Your task to perform on an android device: Go to privacy settings Image 0: 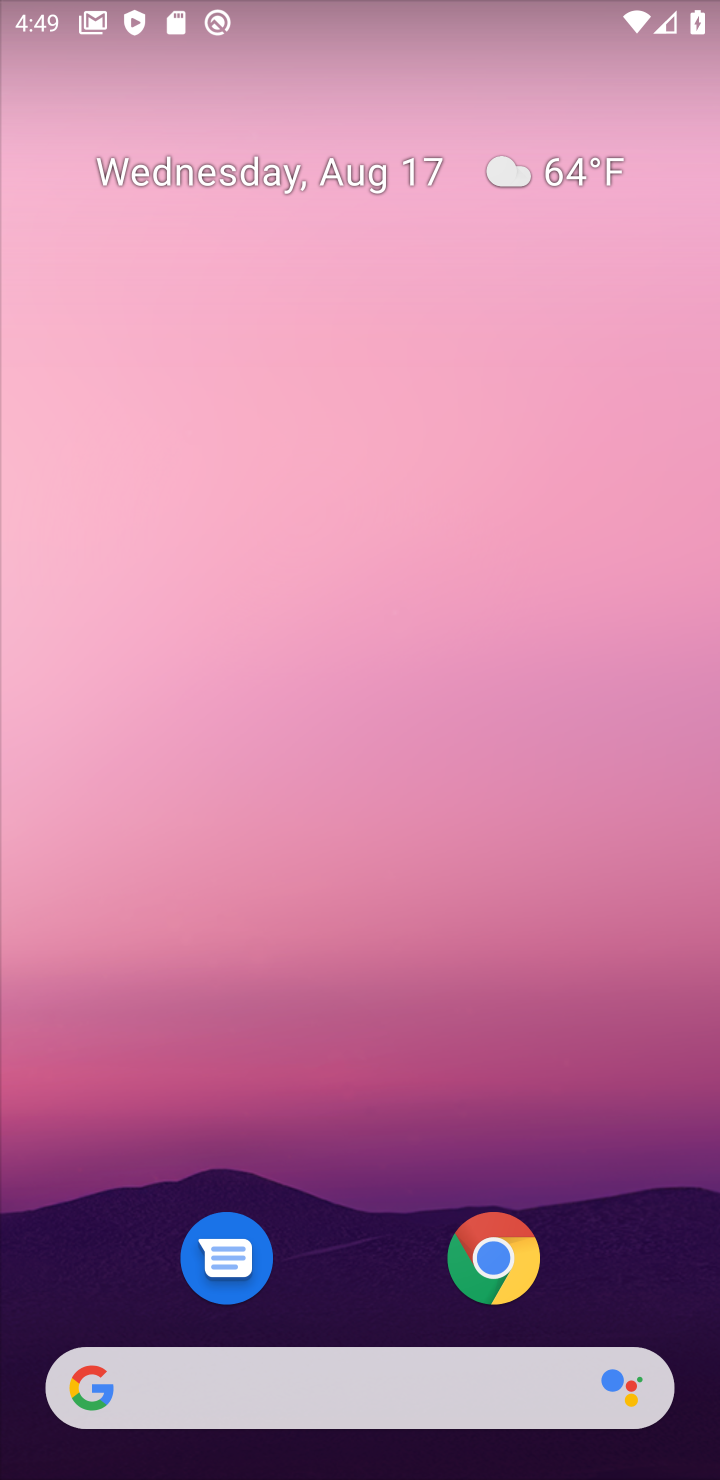
Step 0: press home button
Your task to perform on an android device: Go to privacy settings Image 1: 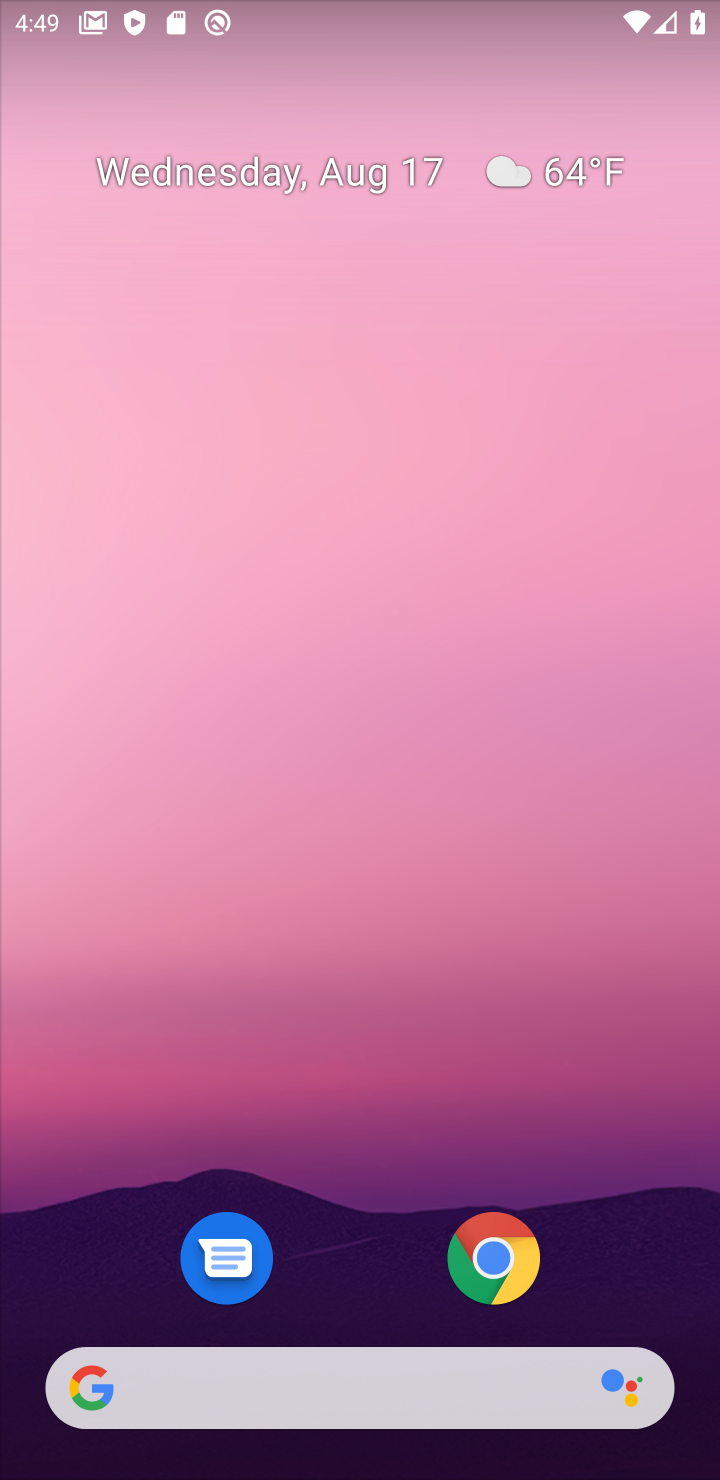
Step 1: drag from (383, 730) to (443, 11)
Your task to perform on an android device: Go to privacy settings Image 2: 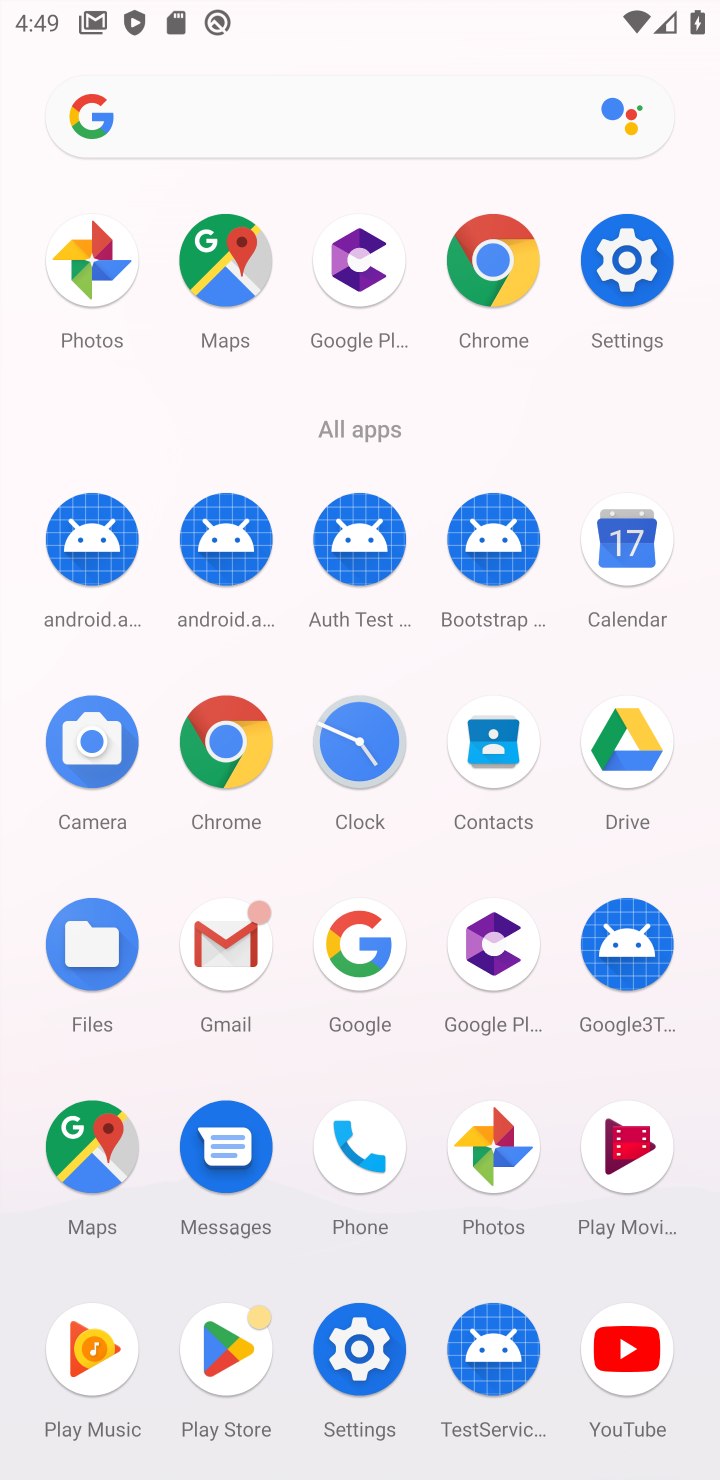
Step 2: click (355, 1331)
Your task to perform on an android device: Go to privacy settings Image 3: 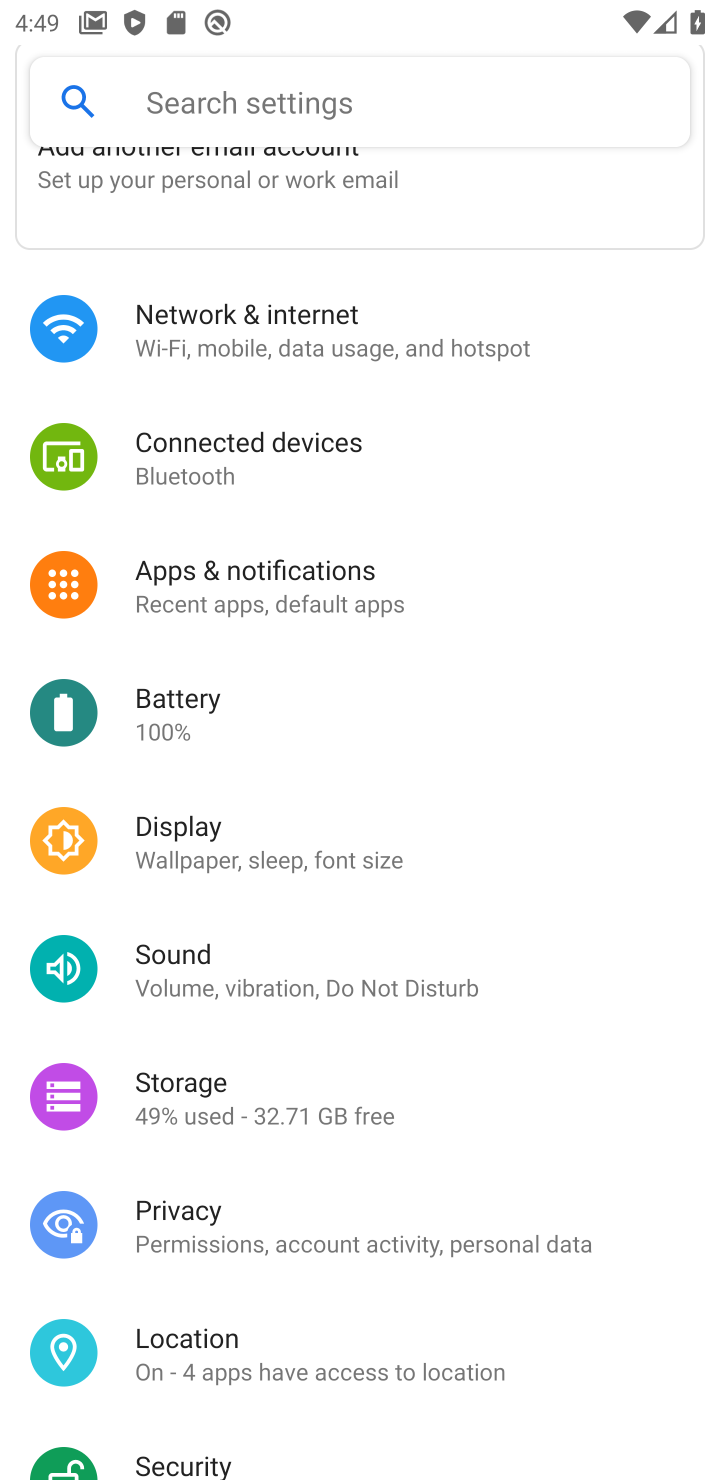
Step 3: click (284, 1026)
Your task to perform on an android device: Go to privacy settings Image 4: 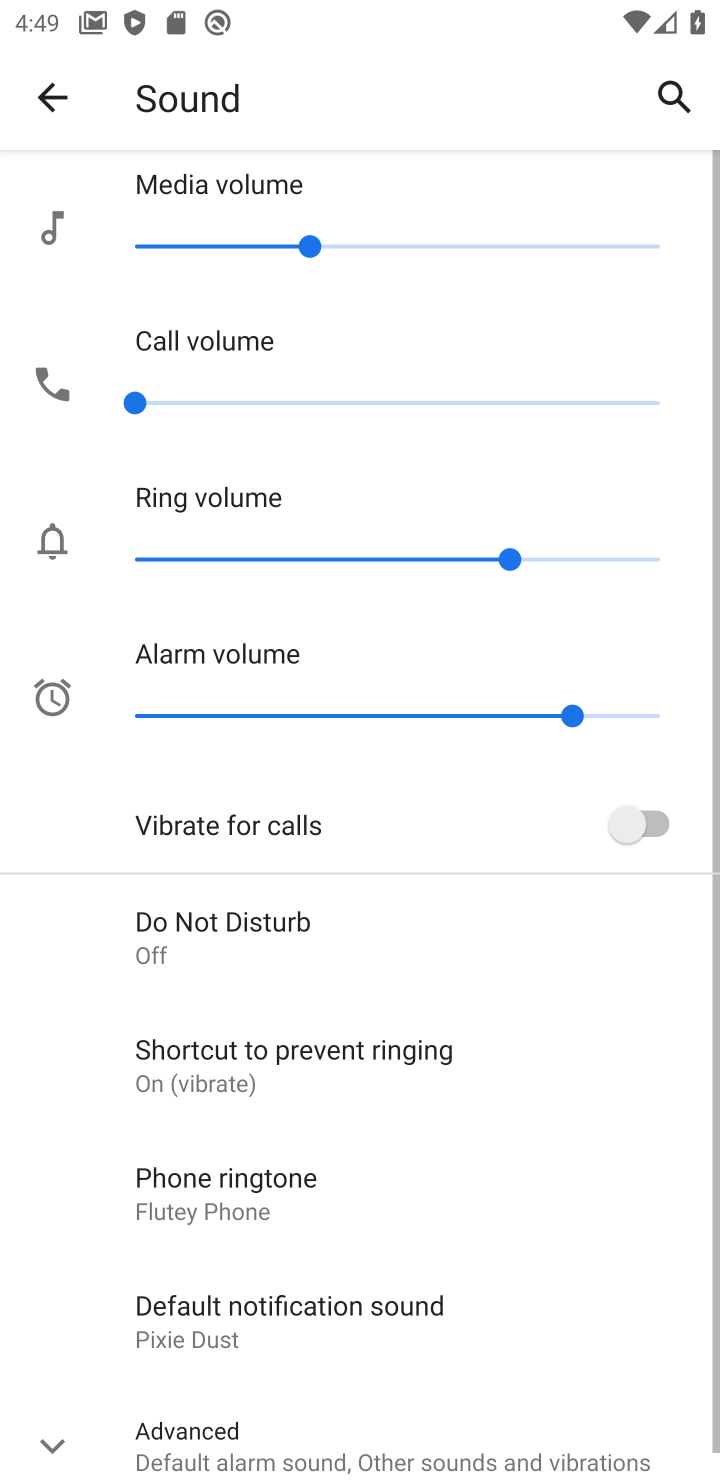
Step 4: press back button
Your task to perform on an android device: Go to privacy settings Image 5: 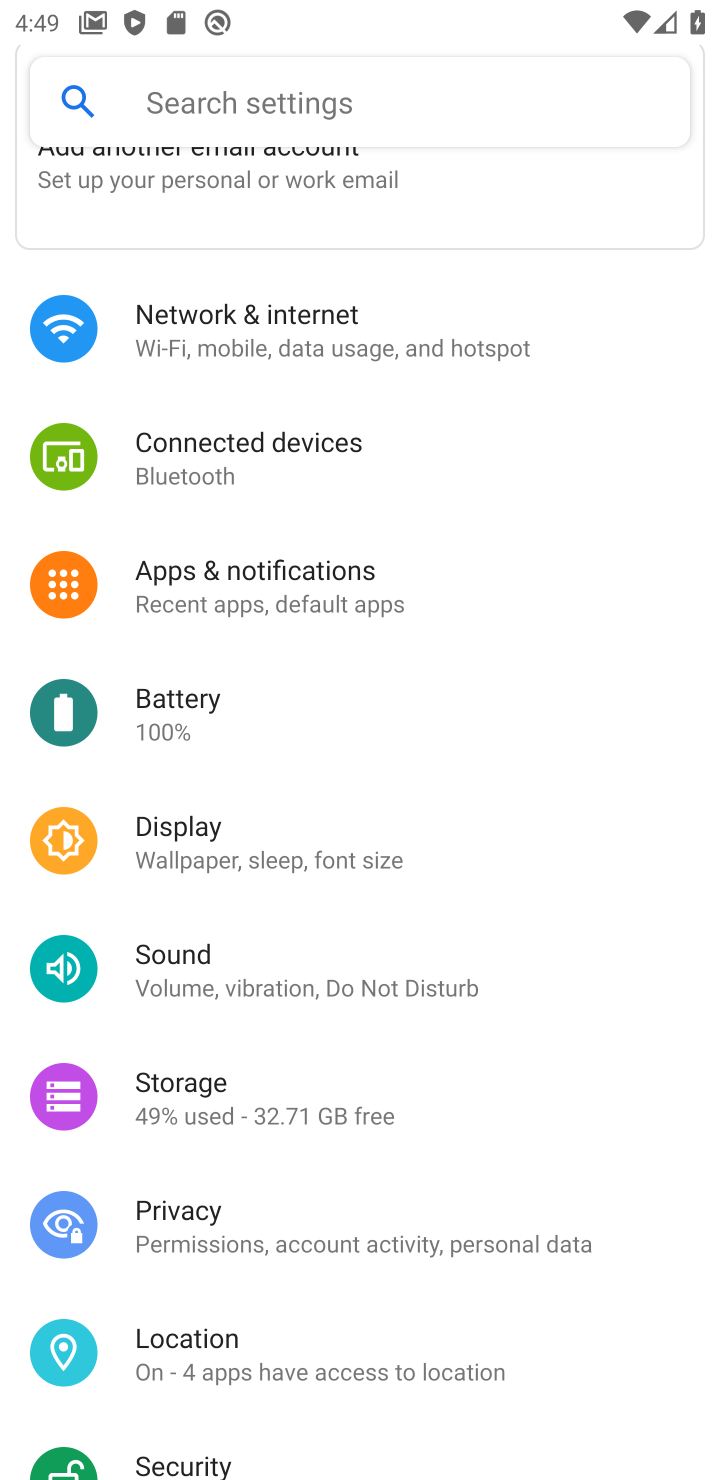
Step 5: click (217, 1220)
Your task to perform on an android device: Go to privacy settings Image 6: 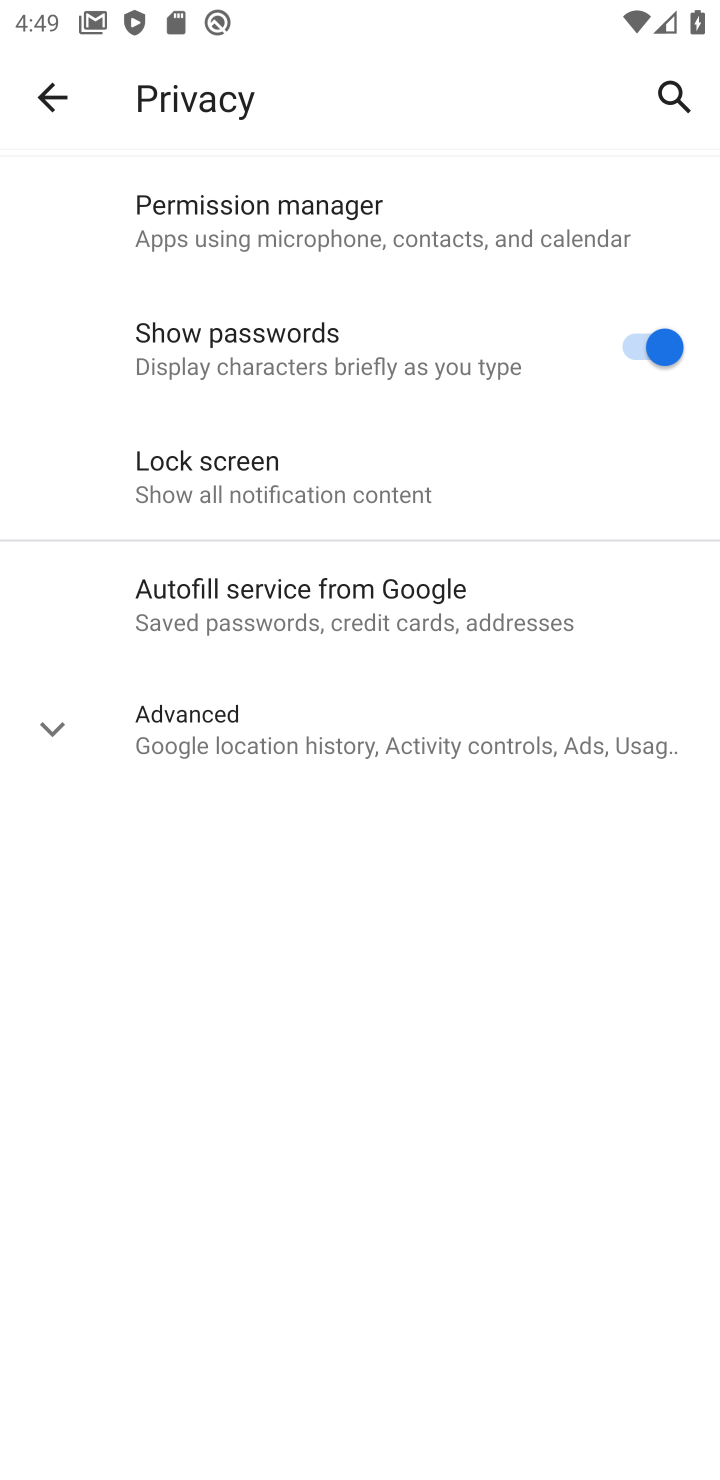
Step 6: task complete